Your task to perform on an android device: turn on notifications settings in the gmail app Image 0: 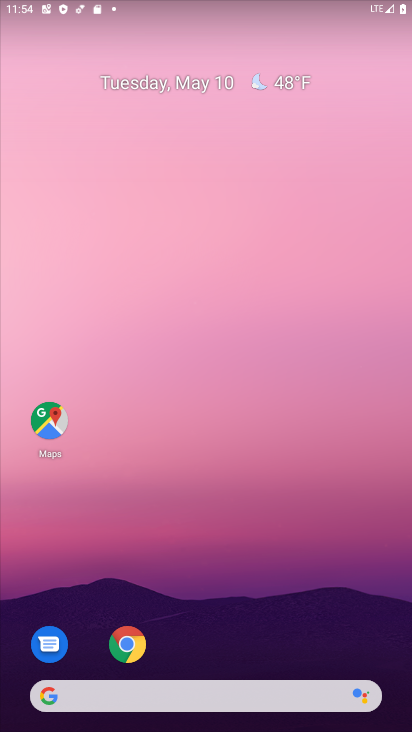
Step 0: drag from (188, 649) to (281, 6)
Your task to perform on an android device: turn on notifications settings in the gmail app Image 1: 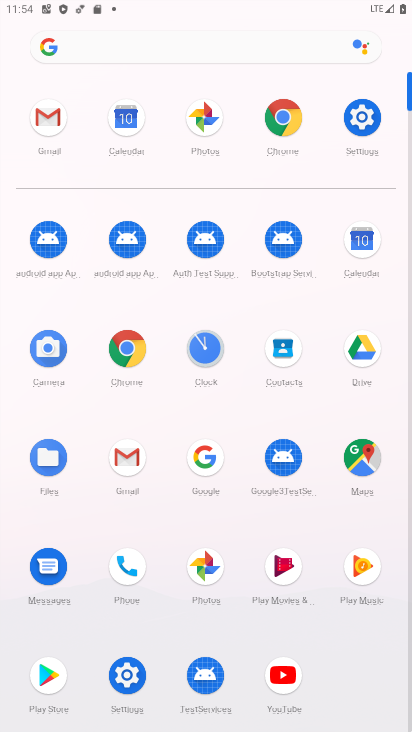
Step 1: click (142, 479)
Your task to perform on an android device: turn on notifications settings in the gmail app Image 2: 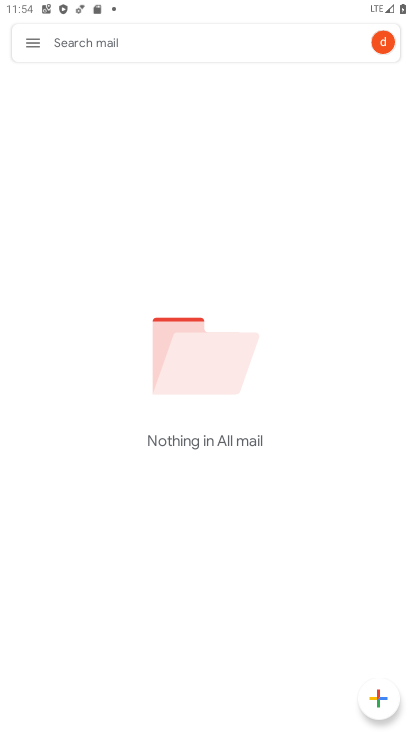
Step 2: click (42, 48)
Your task to perform on an android device: turn on notifications settings in the gmail app Image 3: 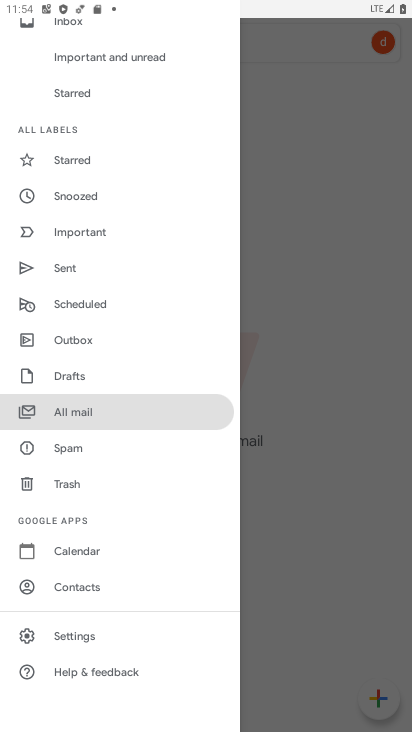
Step 3: click (83, 642)
Your task to perform on an android device: turn on notifications settings in the gmail app Image 4: 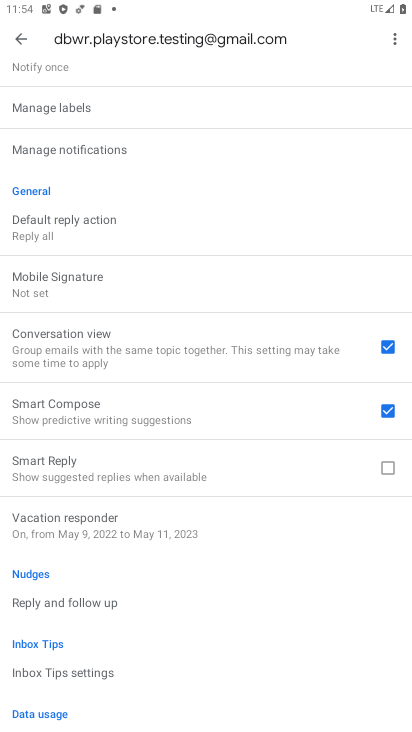
Step 4: click (28, 33)
Your task to perform on an android device: turn on notifications settings in the gmail app Image 5: 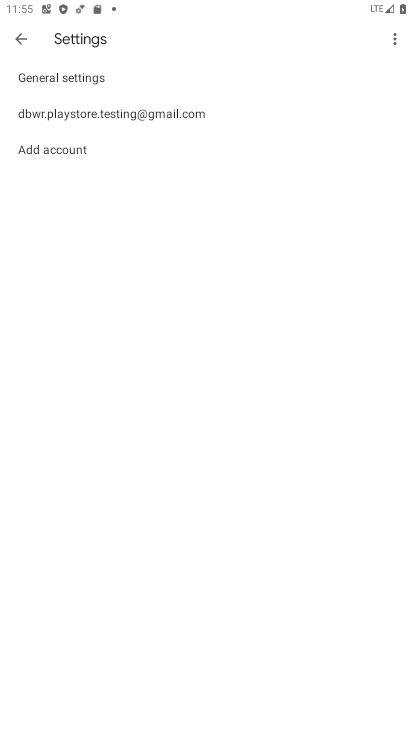
Step 5: click (106, 85)
Your task to perform on an android device: turn on notifications settings in the gmail app Image 6: 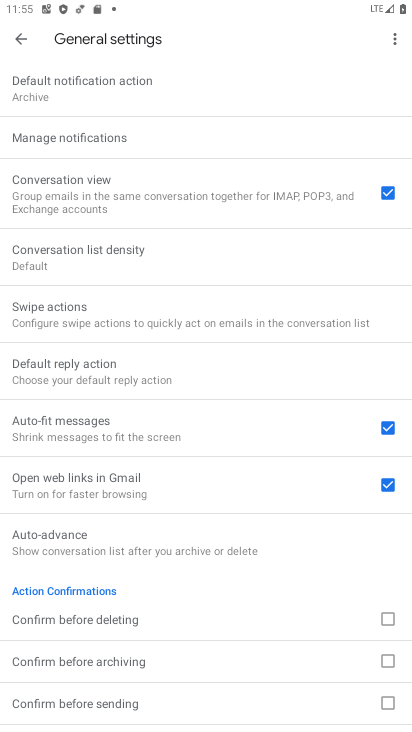
Step 6: click (106, 137)
Your task to perform on an android device: turn on notifications settings in the gmail app Image 7: 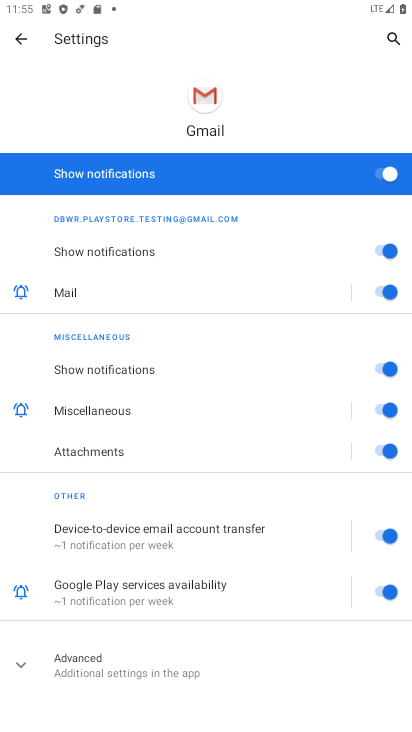
Step 7: task complete